Your task to perform on an android device: choose inbox layout in the gmail app Image 0: 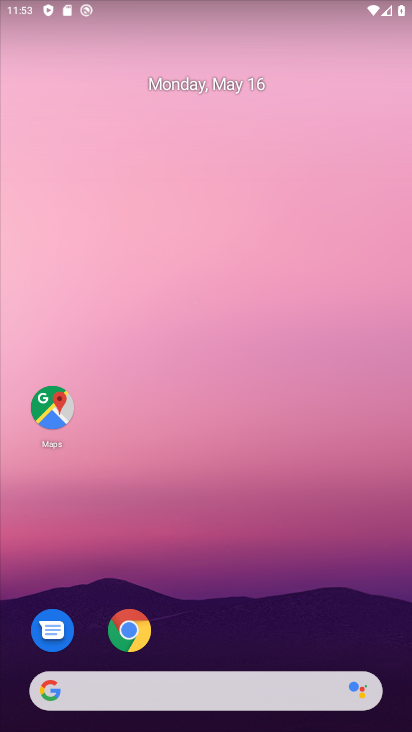
Step 0: drag from (227, 621) to (233, 270)
Your task to perform on an android device: choose inbox layout in the gmail app Image 1: 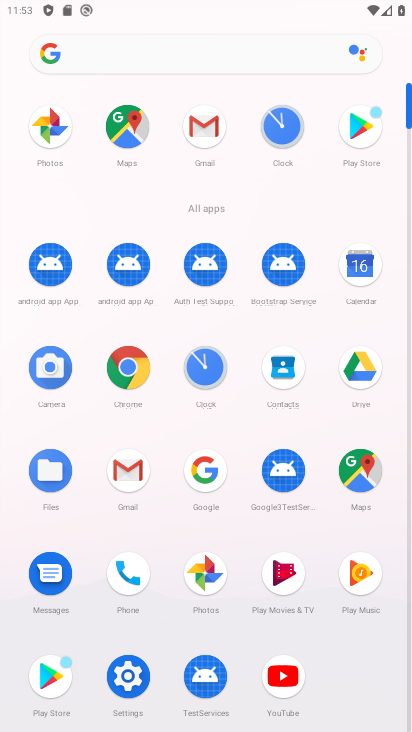
Step 1: click (125, 503)
Your task to perform on an android device: choose inbox layout in the gmail app Image 2: 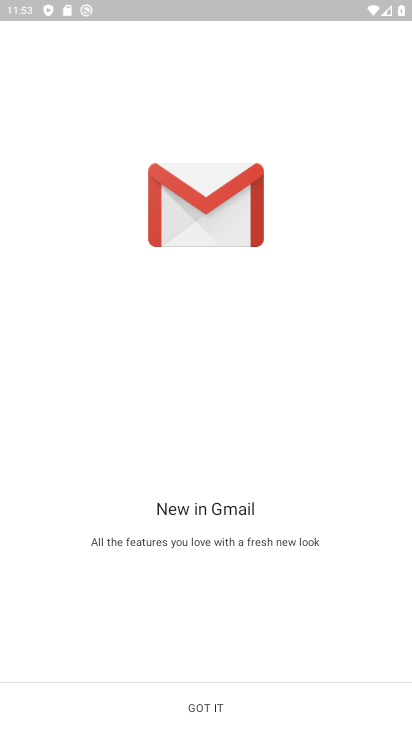
Step 2: click (203, 713)
Your task to perform on an android device: choose inbox layout in the gmail app Image 3: 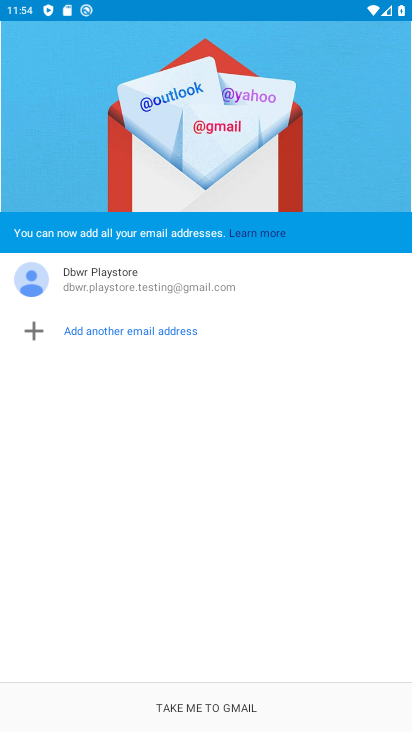
Step 3: click (220, 717)
Your task to perform on an android device: choose inbox layout in the gmail app Image 4: 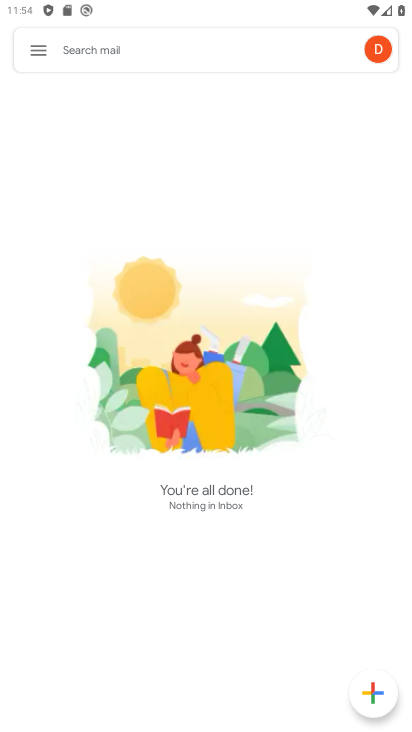
Step 4: click (37, 53)
Your task to perform on an android device: choose inbox layout in the gmail app Image 5: 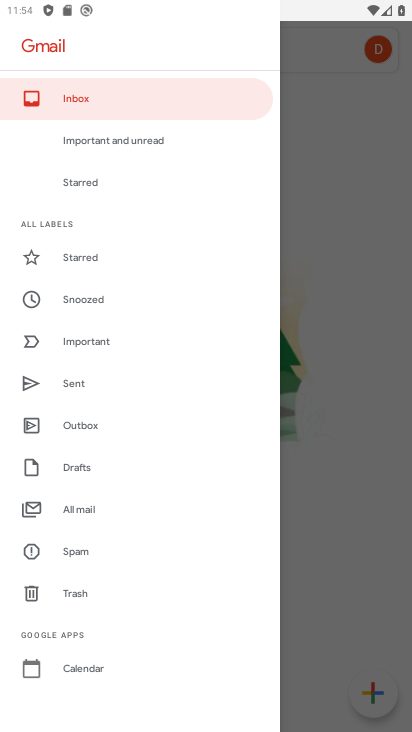
Step 5: drag from (96, 606) to (107, 237)
Your task to perform on an android device: choose inbox layout in the gmail app Image 6: 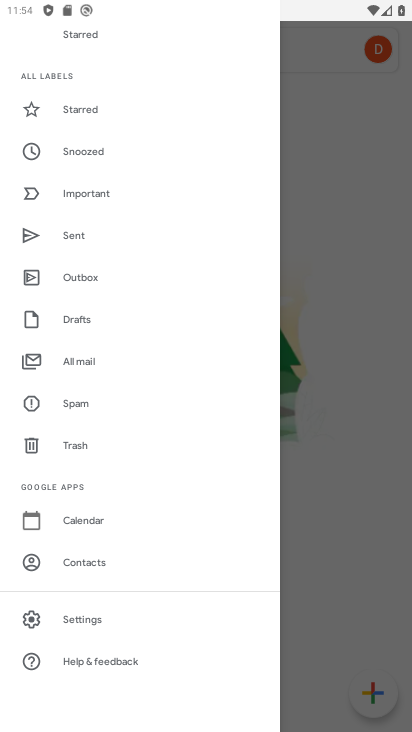
Step 6: click (102, 621)
Your task to perform on an android device: choose inbox layout in the gmail app Image 7: 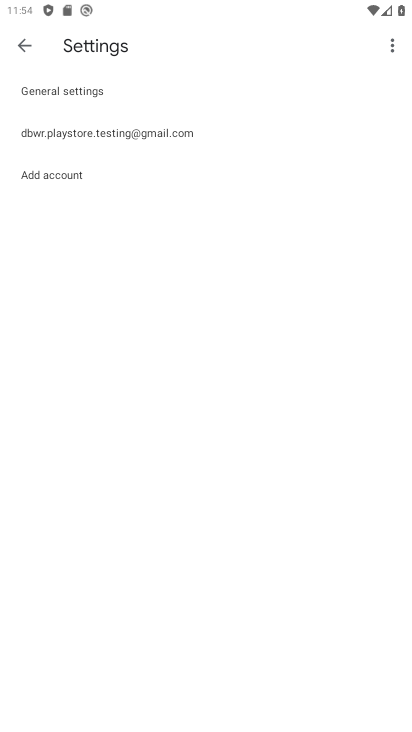
Step 7: task complete